Your task to perform on an android device: toggle translation in the chrome app Image 0: 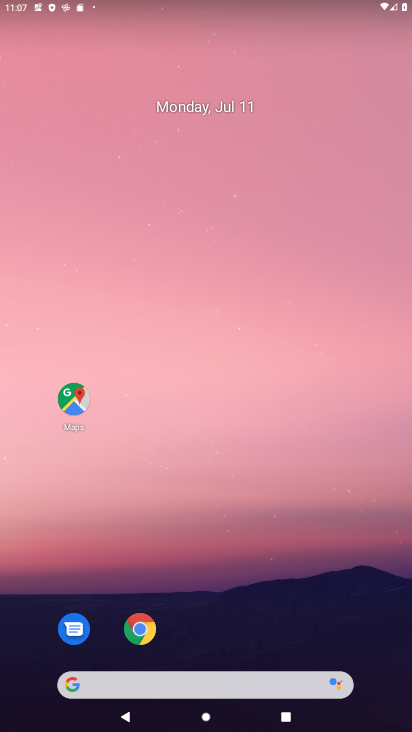
Step 0: click (142, 639)
Your task to perform on an android device: toggle translation in the chrome app Image 1: 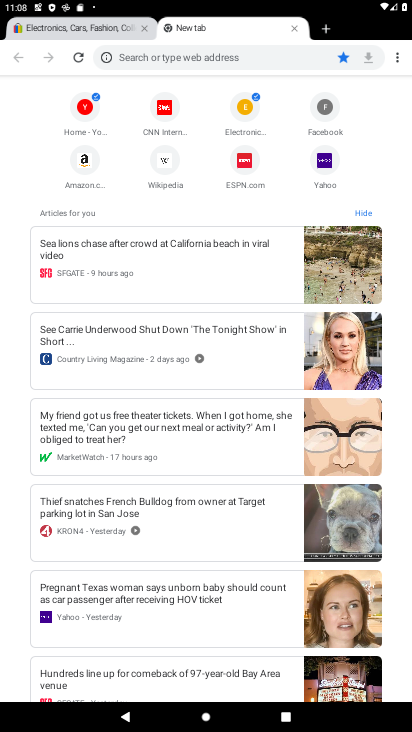
Step 1: click (393, 65)
Your task to perform on an android device: toggle translation in the chrome app Image 2: 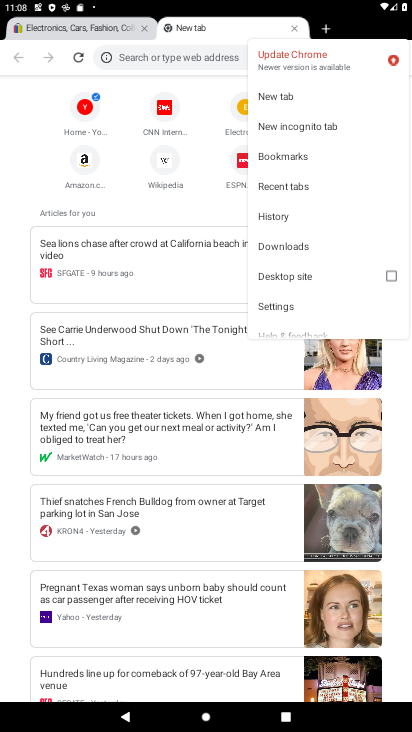
Step 2: click (298, 299)
Your task to perform on an android device: toggle translation in the chrome app Image 3: 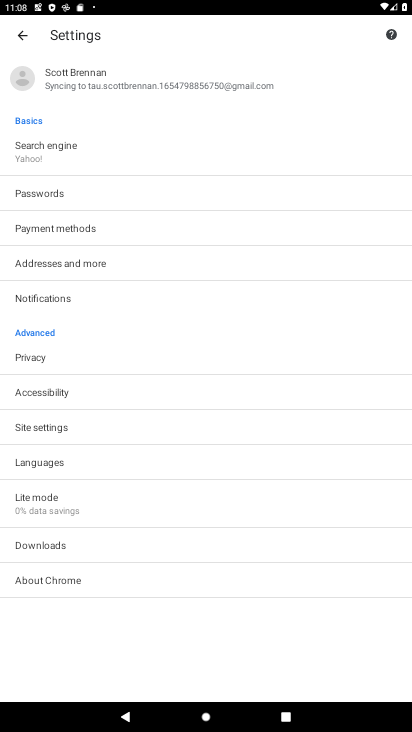
Step 3: click (132, 459)
Your task to perform on an android device: toggle translation in the chrome app Image 4: 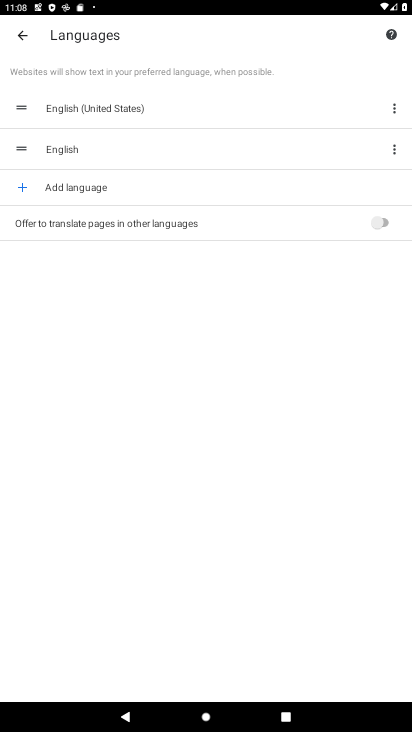
Step 4: click (363, 222)
Your task to perform on an android device: toggle translation in the chrome app Image 5: 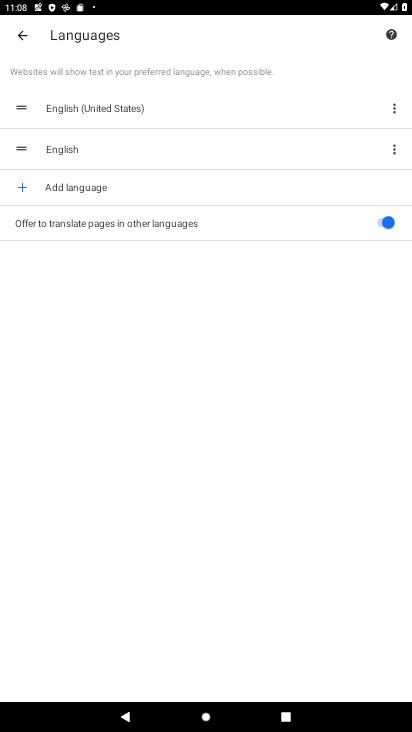
Step 5: task complete